Your task to perform on an android device: Open the stopwatch Image 0: 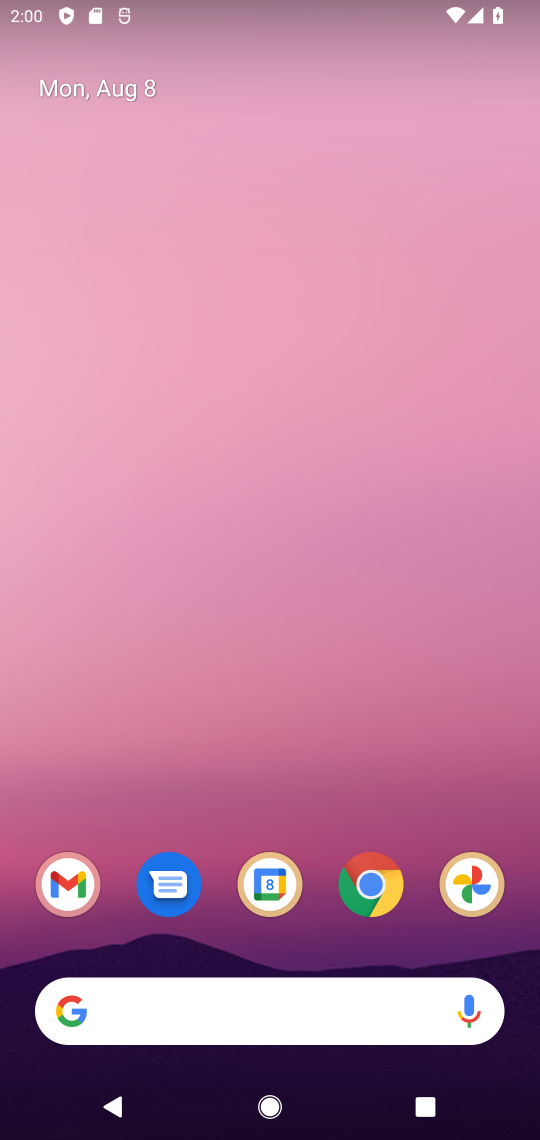
Step 0: drag from (249, 784) to (260, 147)
Your task to perform on an android device: Open the stopwatch Image 1: 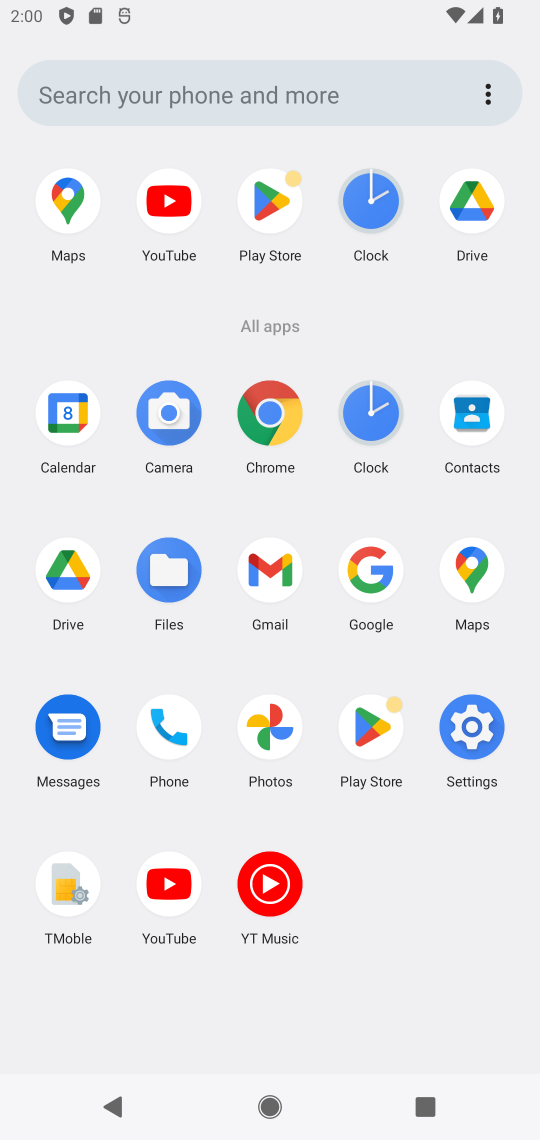
Step 1: click (375, 193)
Your task to perform on an android device: Open the stopwatch Image 2: 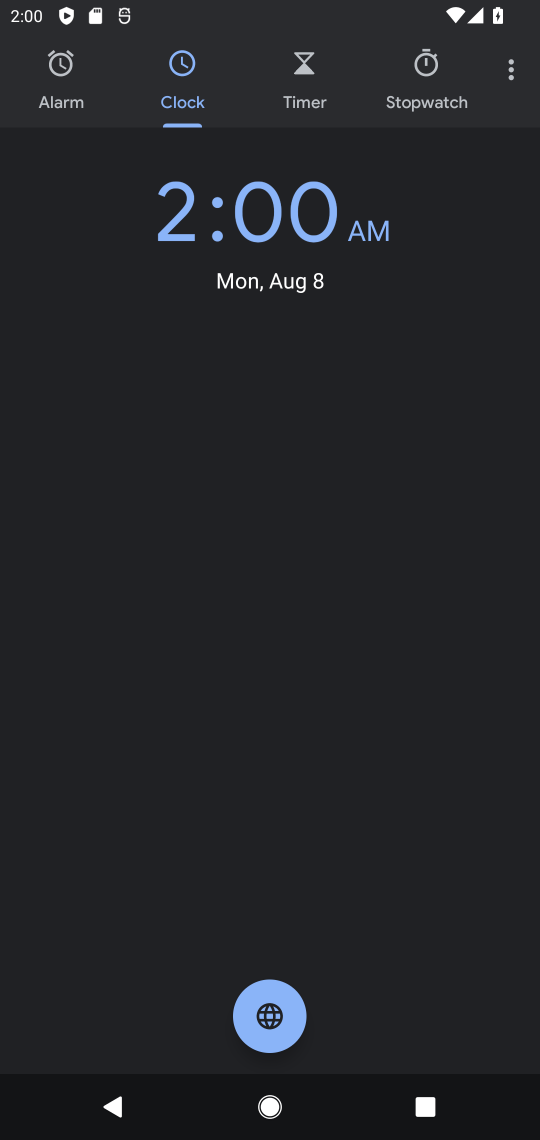
Step 2: click (430, 68)
Your task to perform on an android device: Open the stopwatch Image 3: 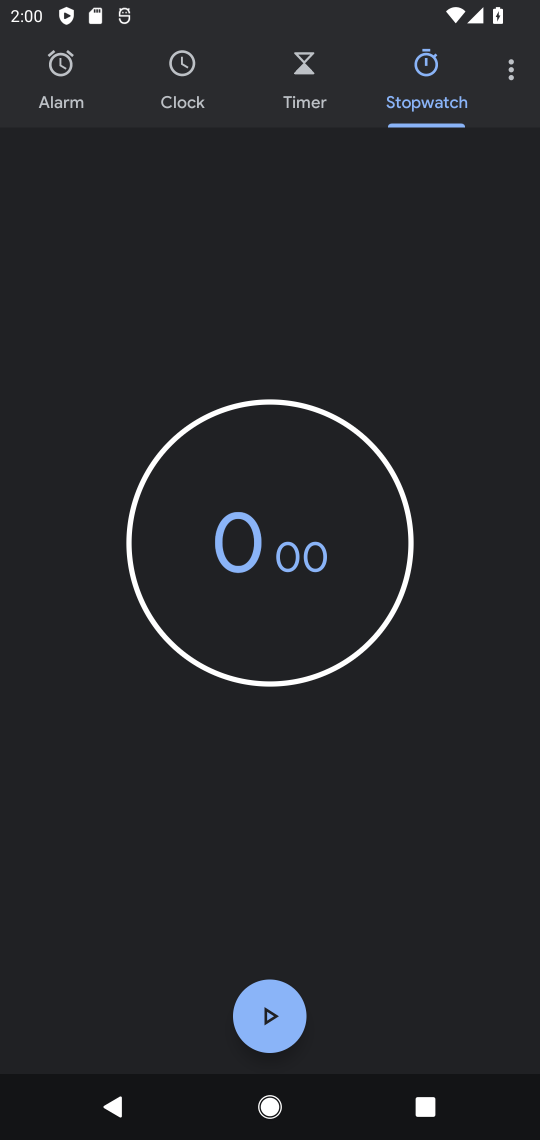
Step 3: task complete